Your task to perform on an android device: see creations saved in the google photos Image 0: 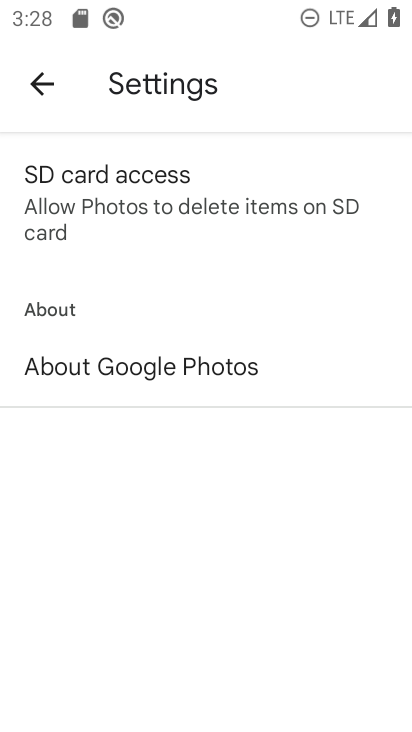
Step 0: press home button
Your task to perform on an android device: see creations saved in the google photos Image 1: 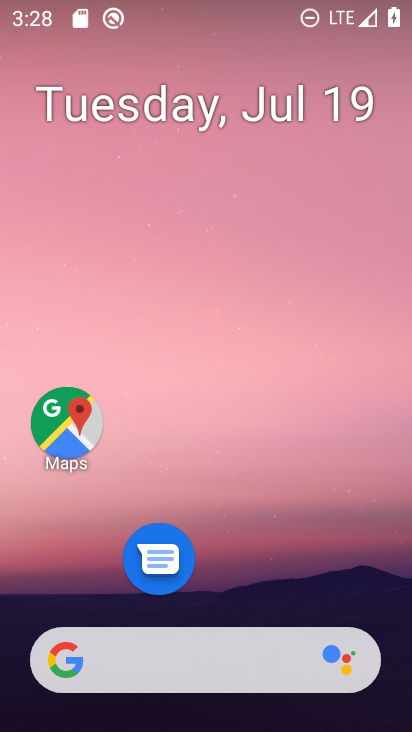
Step 1: drag from (232, 659) to (247, 260)
Your task to perform on an android device: see creations saved in the google photos Image 2: 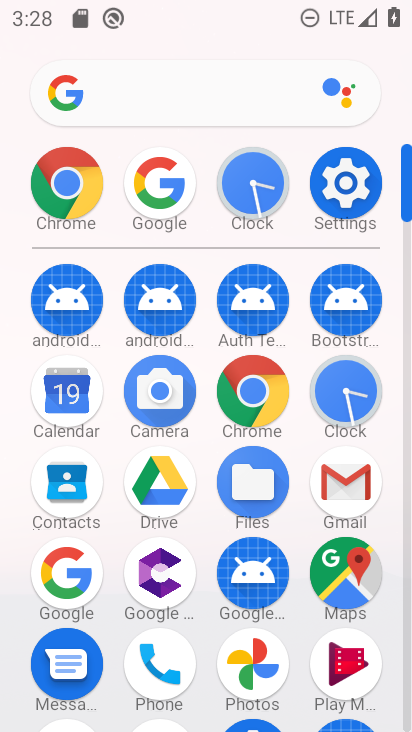
Step 2: drag from (218, 447) to (290, 38)
Your task to perform on an android device: see creations saved in the google photos Image 3: 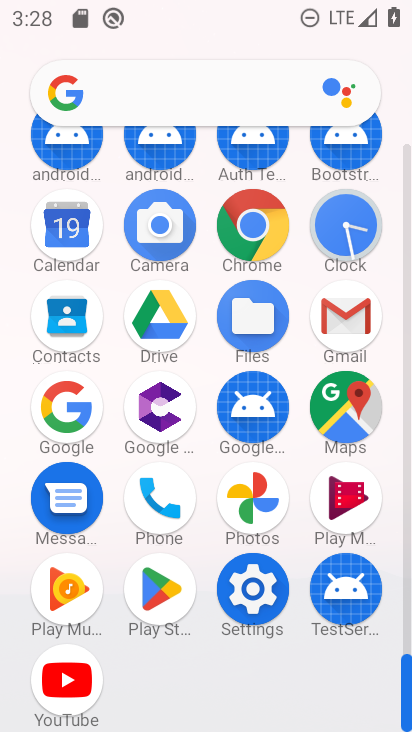
Step 3: click (256, 530)
Your task to perform on an android device: see creations saved in the google photos Image 4: 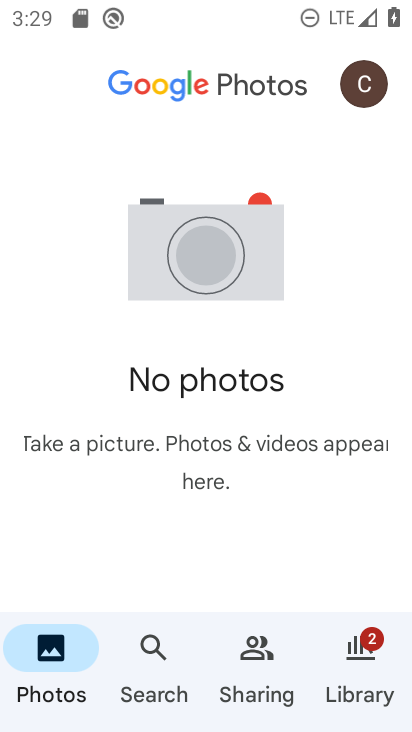
Step 4: click (220, 694)
Your task to perform on an android device: see creations saved in the google photos Image 5: 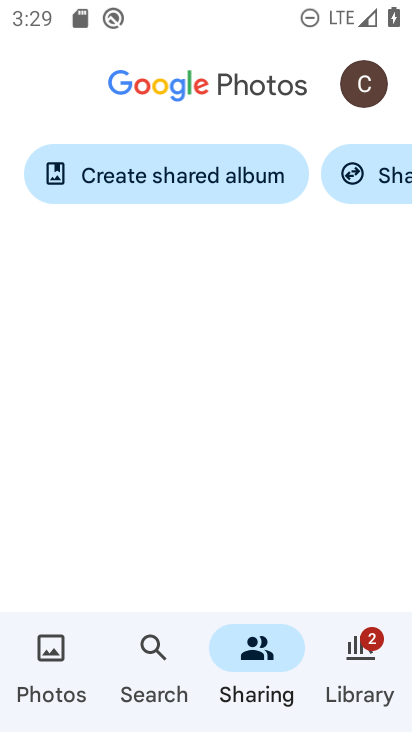
Step 5: click (359, 670)
Your task to perform on an android device: see creations saved in the google photos Image 6: 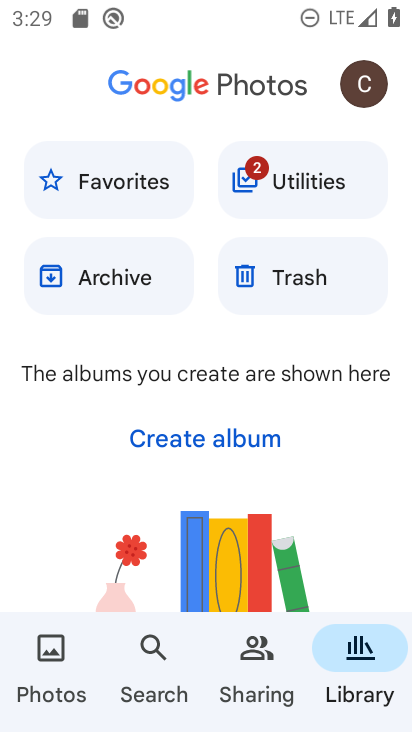
Step 6: task complete